Your task to perform on an android device: Open accessibility settings Image 0: 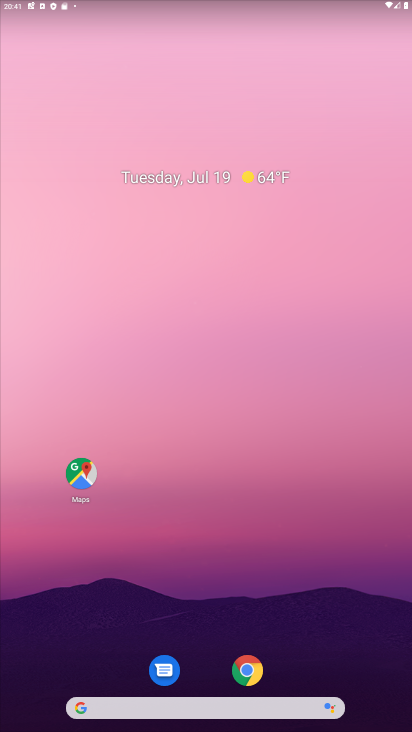
Step 0: drag from (71, 553) to (210, 4)
Your task to perform on an android device: Open accessibility settings Image 1: 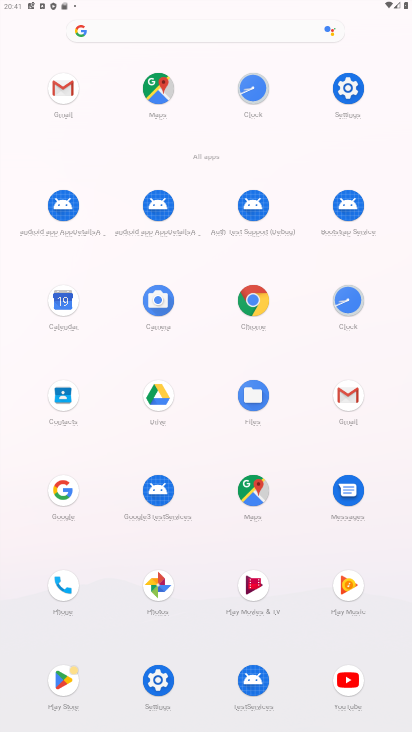
Step 1: click (356, 79)
Your task to perform on an android device: Open accessibility settings Image 2: 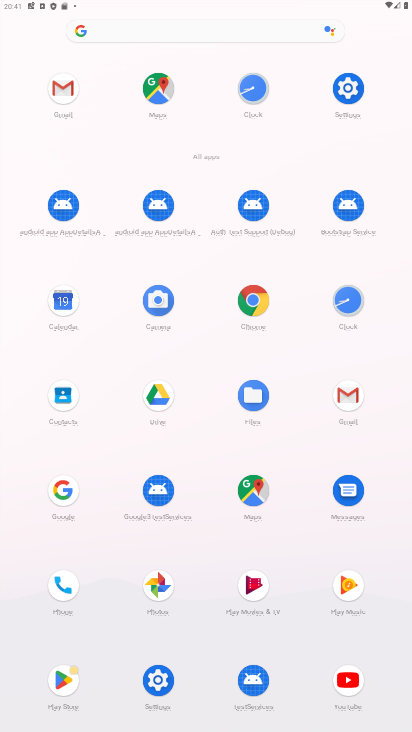
Step 2: click (356, 79)
Your task to perform on an android device: Open accessibility settings Image 3: 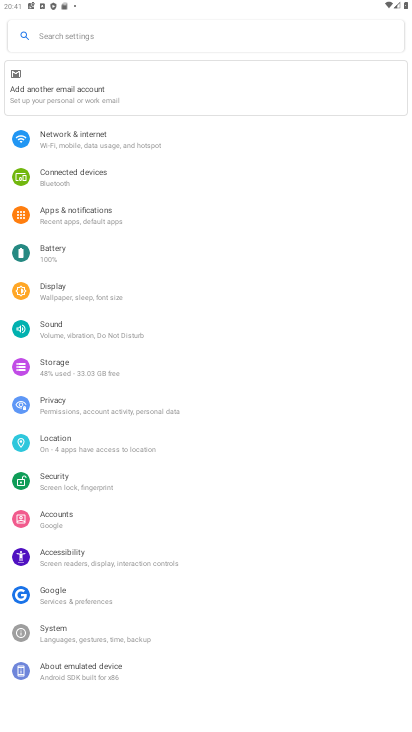
Step 3: click (120, 540)
Your task to perform on an android device: Open accessibility settings Image 4: 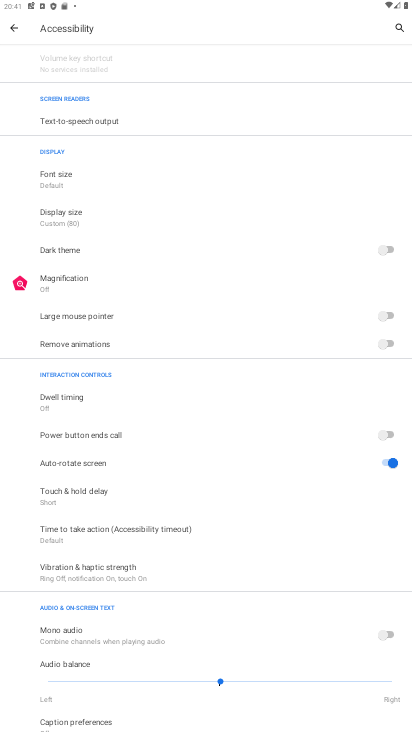
Step 4: task complete